Your task to perform on an android device: open chrome privacy settings Image 0: 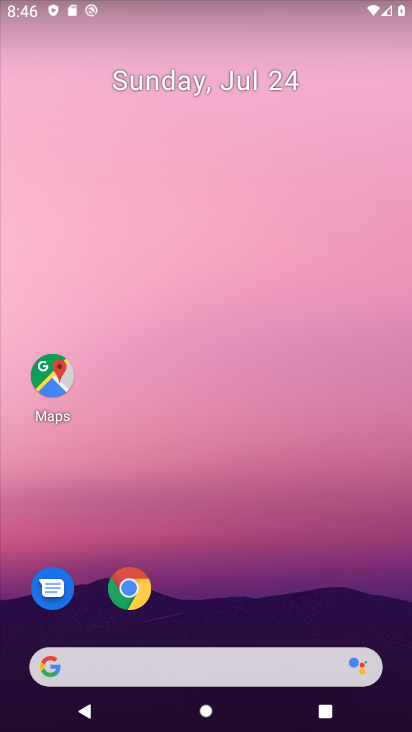
Step 0: click (133, 610)
Your task to perform on an android device: open chrome privacy settings Image 1: 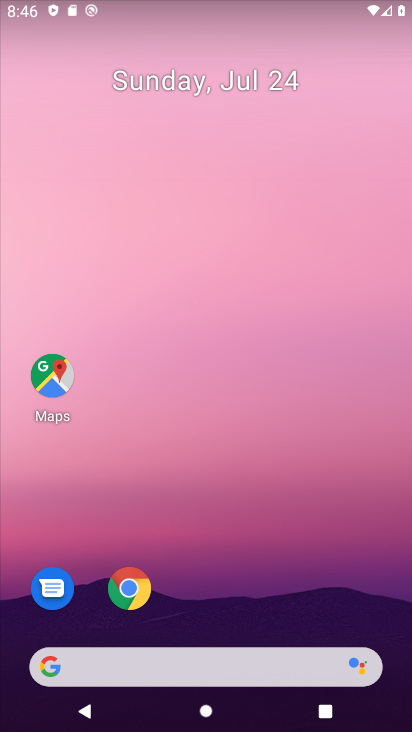
Step 1: click (133, 610)
Your task to perform on an android device: open chrome privacy settings Image 2: 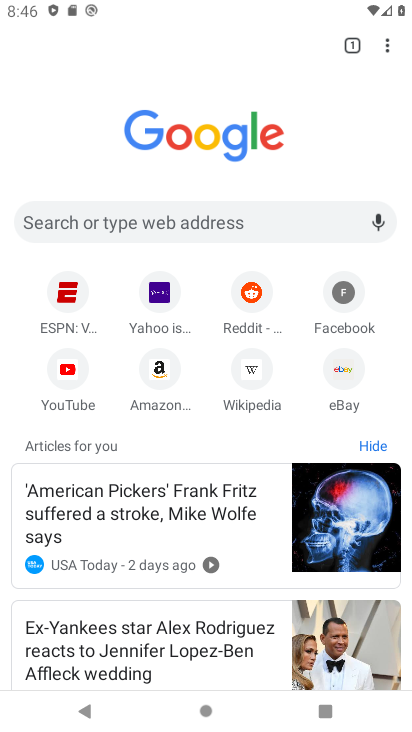
Step 2: click (389, 46)
Your task to perform on an android device: open chrome privacy settings Image 3: 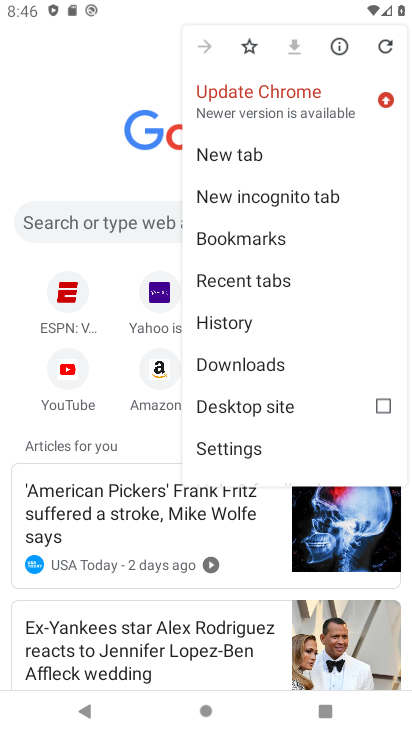
Step 3: click (272, 444)
Your task to perform on an android device: open chrome privacy settings Image 4: 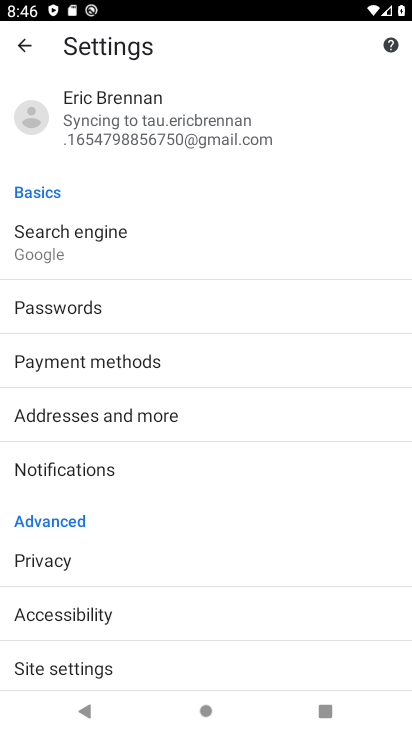
Step 4: click (46, 557)
Your task to perform on an android device: open chrome privacy settings Image 5: 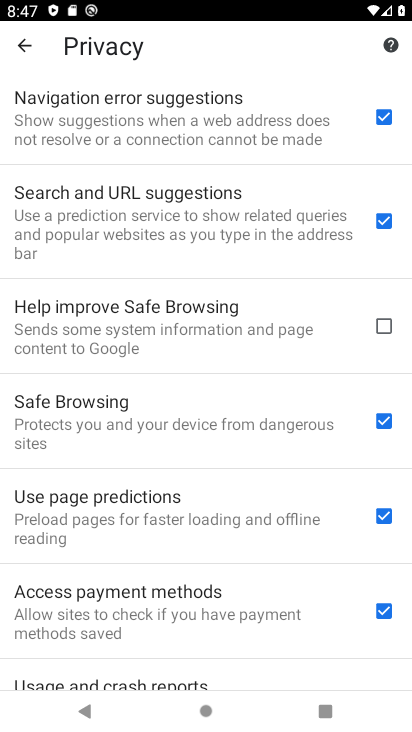
Step 5: task complete